Your task to perform on an android device: clear all cookies in the chrome app Image 0: 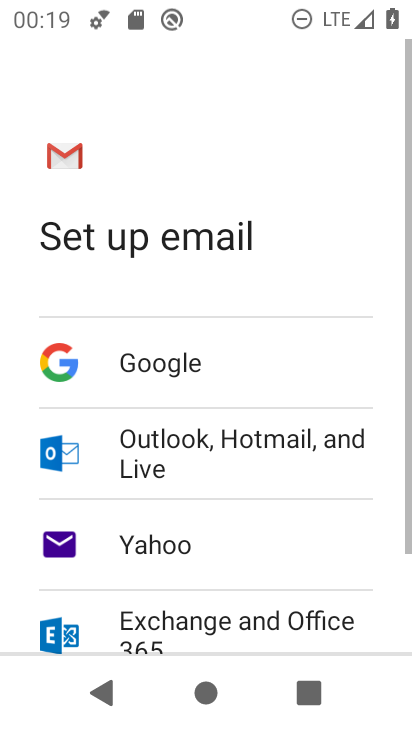
Step 0: press home button
Your task to perform on an android device: clear all cookies in the chrome app Image 1: 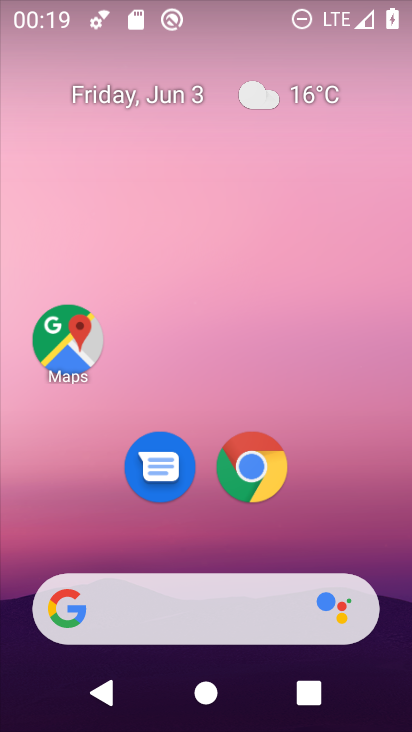
Step 1: click (256, 466)
Your task to perform on an android device: clear all cookies in the chrome app Image 2: 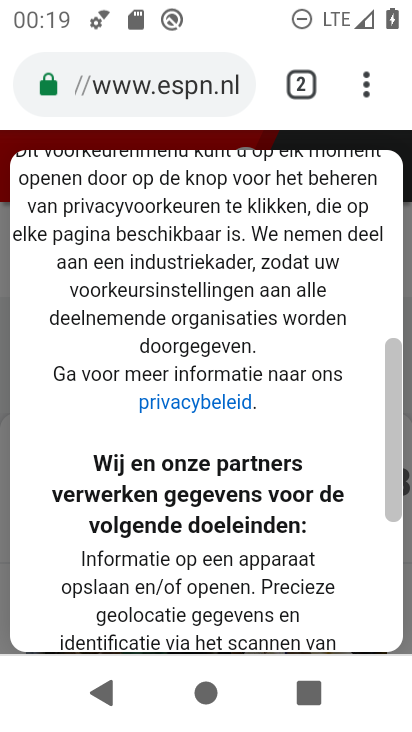
Step 2: click (367, 97)
Your task to perform on an android device: clear all cookies in the chrome app Image 3: 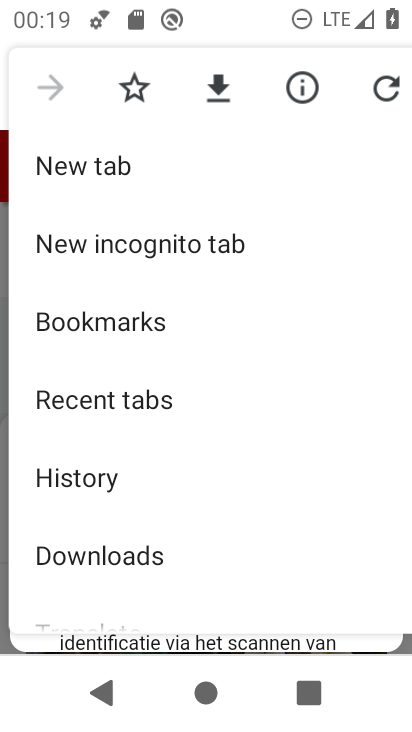
Step 3: click (88, 474)
Your task to perform on an android device: clear all cookies in the chrome app Image 4: 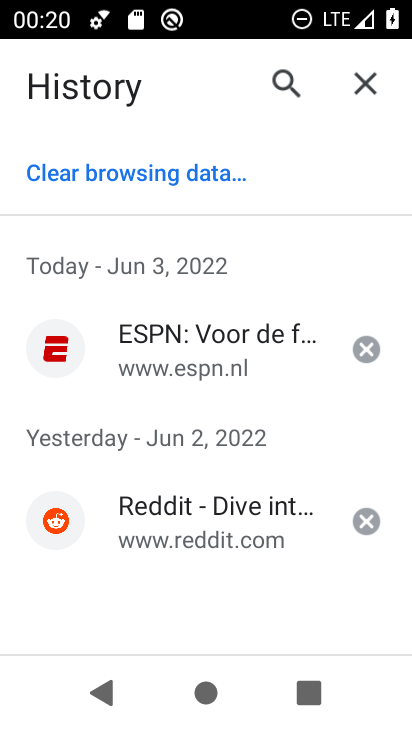
Step 4: click (88, 168)
Your task to perform on an android device: clear all cookies in the chrome app Image 5: 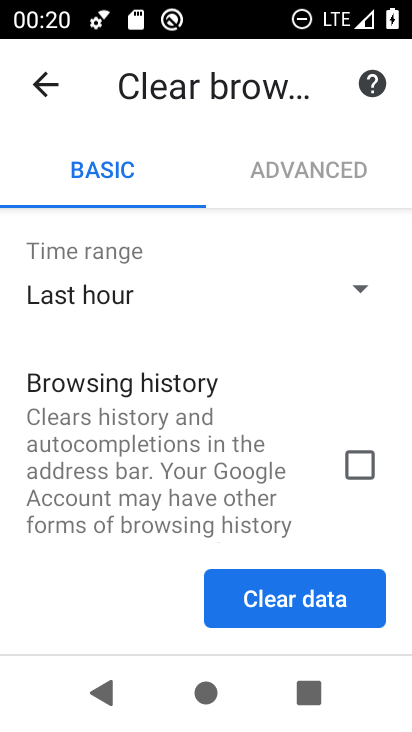
Step 5: drag from (323, 487) to (340, 25)
Your task to perform on an android device: clear all cookies in the chrome app Image 6: 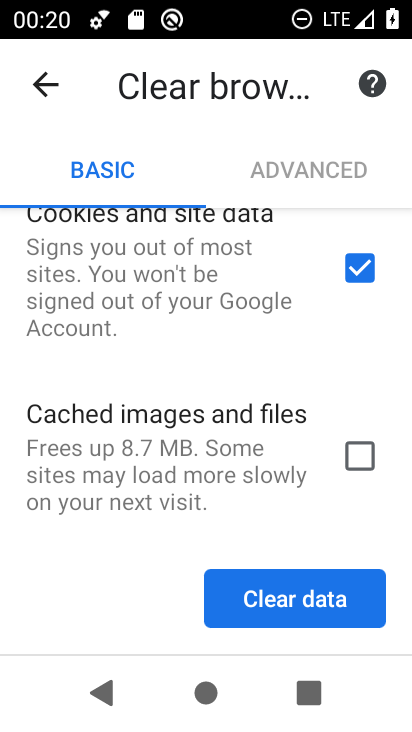
Step 6: click (280, 606)
Your task to perform on an android device: clear all cookies in the chrome app Image 7: 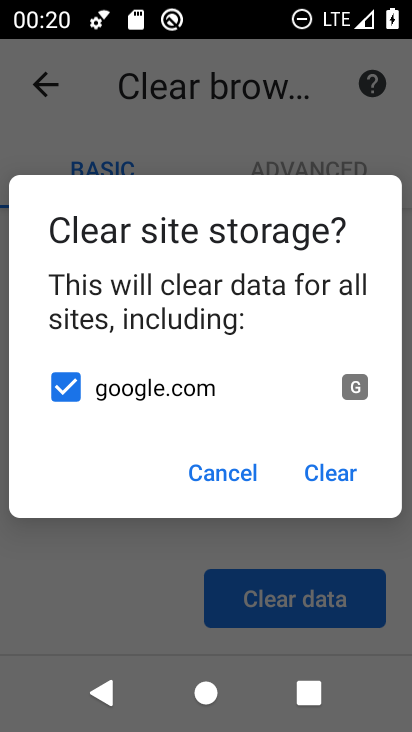
Step 7: click (351, 470)
Your task to perform on an android device: clear all cookies in the chrome app Image 8: 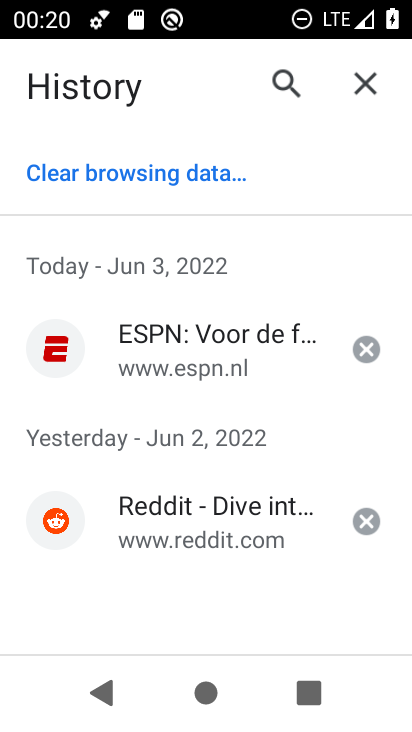
Step 8: task complete